Your task to perform on an android device: open app "Pinterest" (install if not already installed) Image 0: 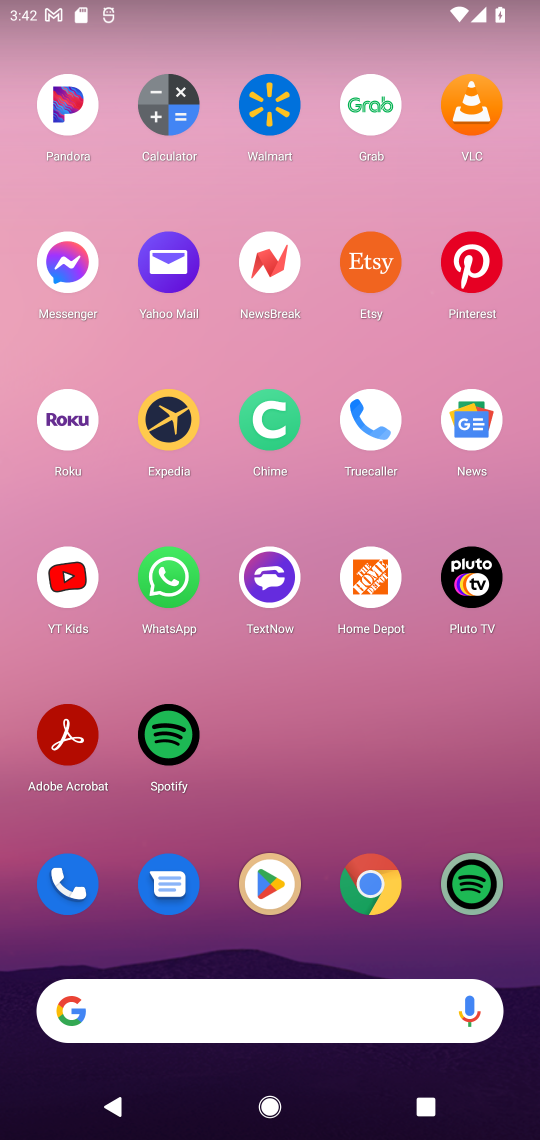
Step 0: click (264, 886)
Your task to perform on an android device: open app "Pinterest" (install if not already installed) Image 1: 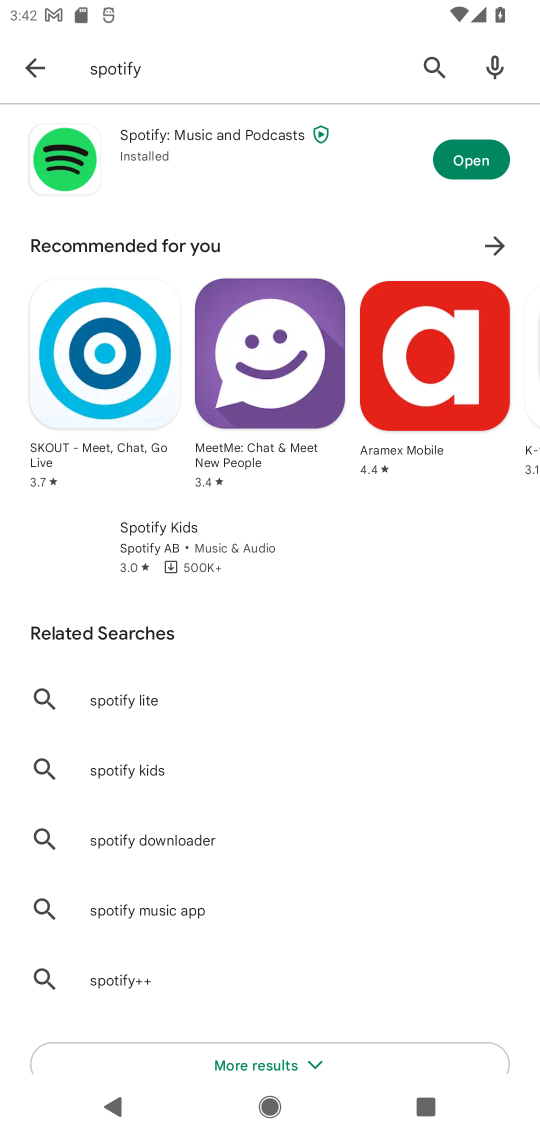
Step 1: click (164, 70)
Your task to perform on an android device: open app "Pinterest" (install if not already installed) Image 2: 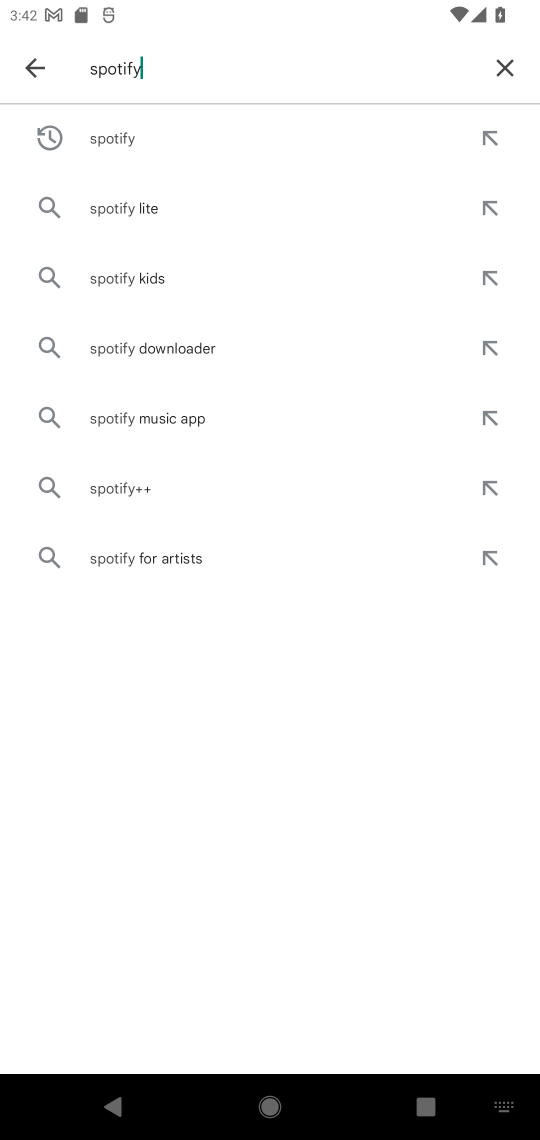
Step 2: click (510, 66)
Your task to perform on an android device: open app "Pinterest" (install if not already installed) Image 3: 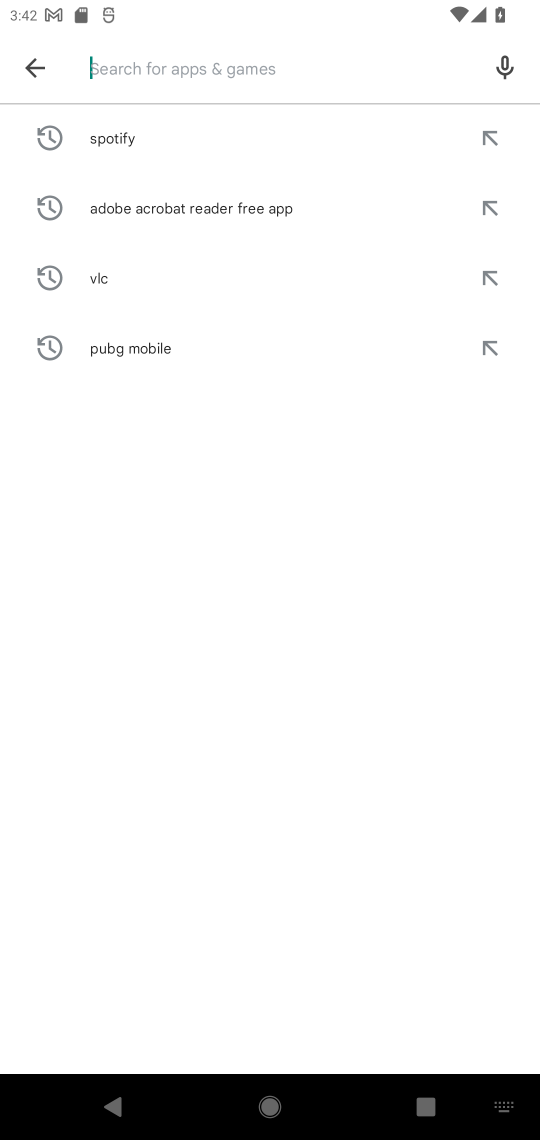
Step 3: type "Pinterest"
Your task to perform on an android device: open app "Pinterest" (install if not already installed) Image 4: 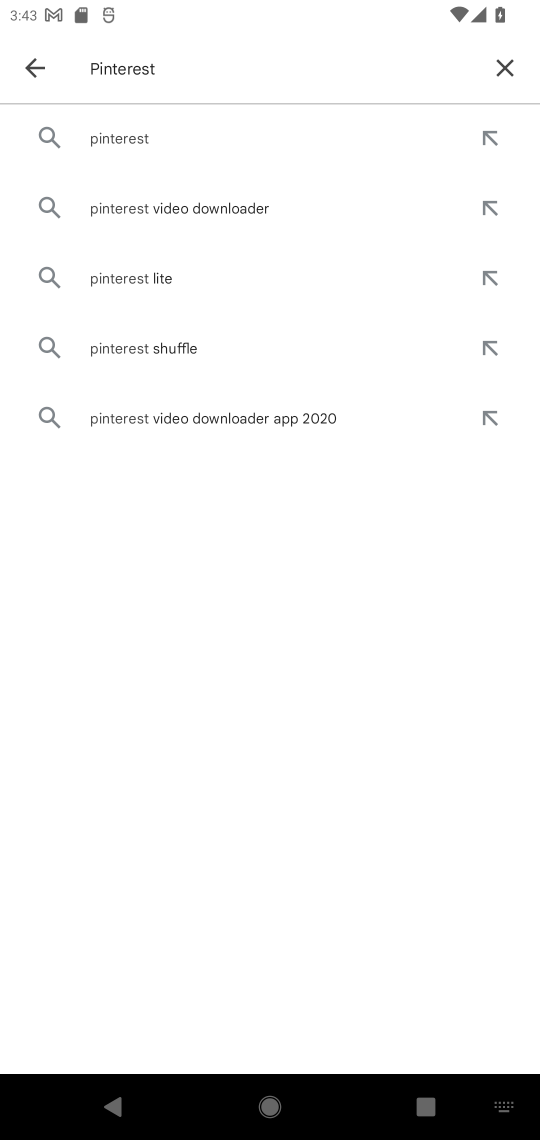
Step 4: click (148, 142)
Your task to perform on an android device: open app "Pinterest" (install if not already installed) Image 5: 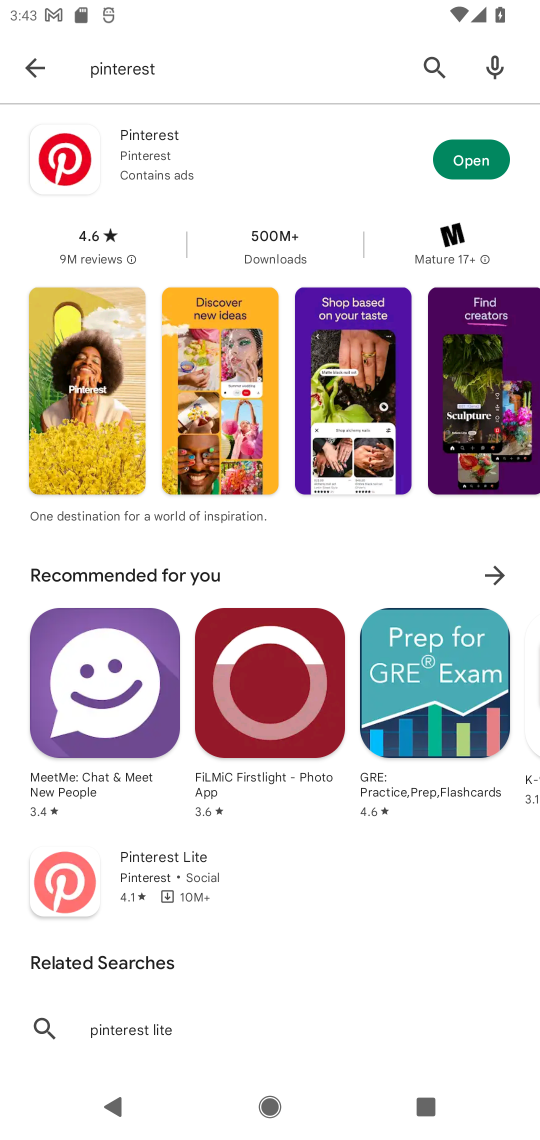
Step 5: click (497, 163)
Your task to perform on an android device: open app "Pinterest" (install if not already installed) Image 6: 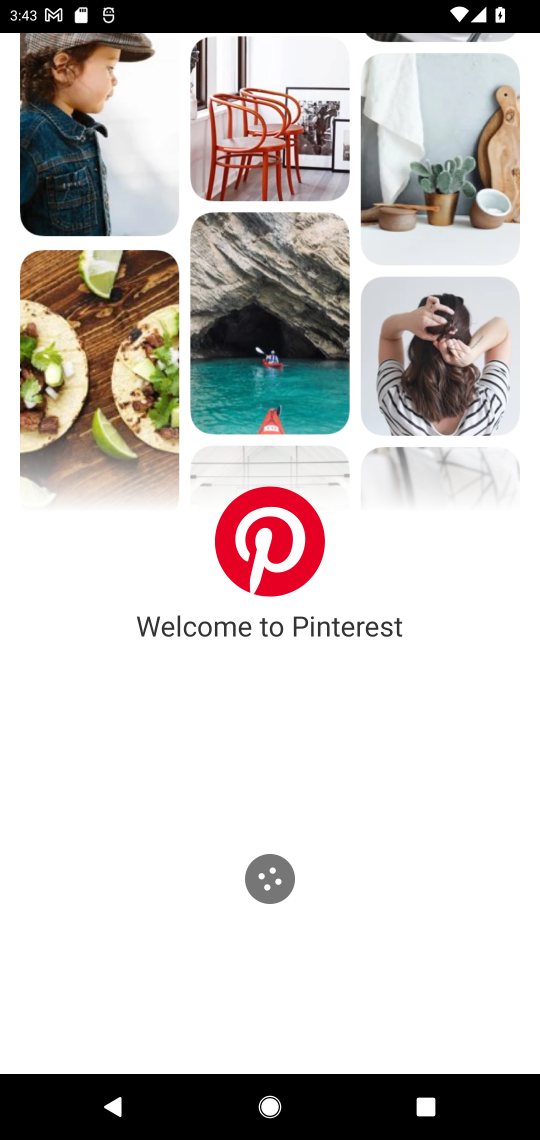
Step 6: click (214, 1010)
Your task to perform on an android device: open app "Pinterest" (install if not already installed) Image 7: 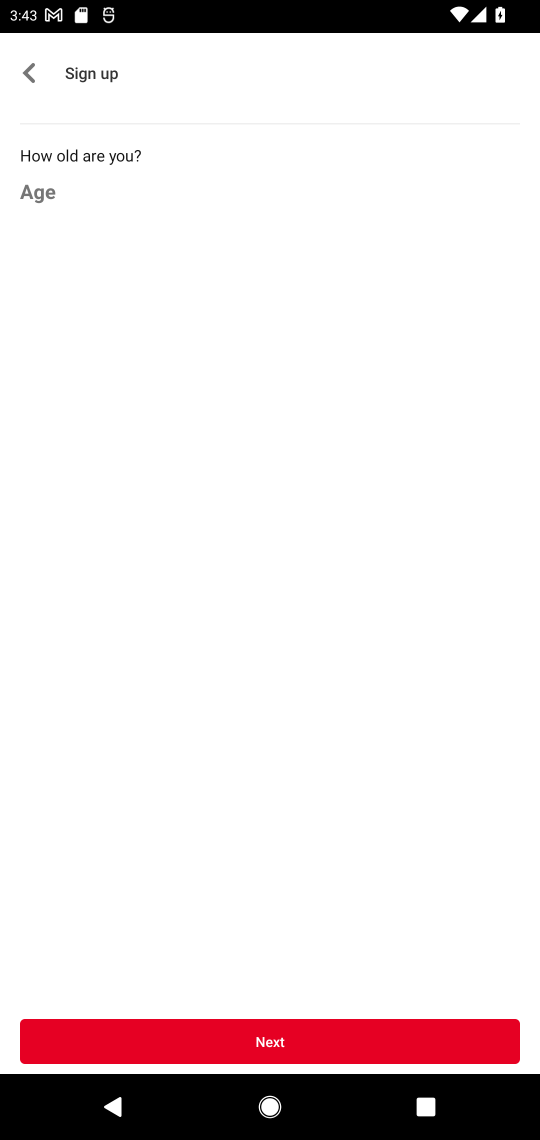
Step 7: click (27, 67)
Your task to perform on an android device: open app "Pinterest" (install if not already installed) Image 8: 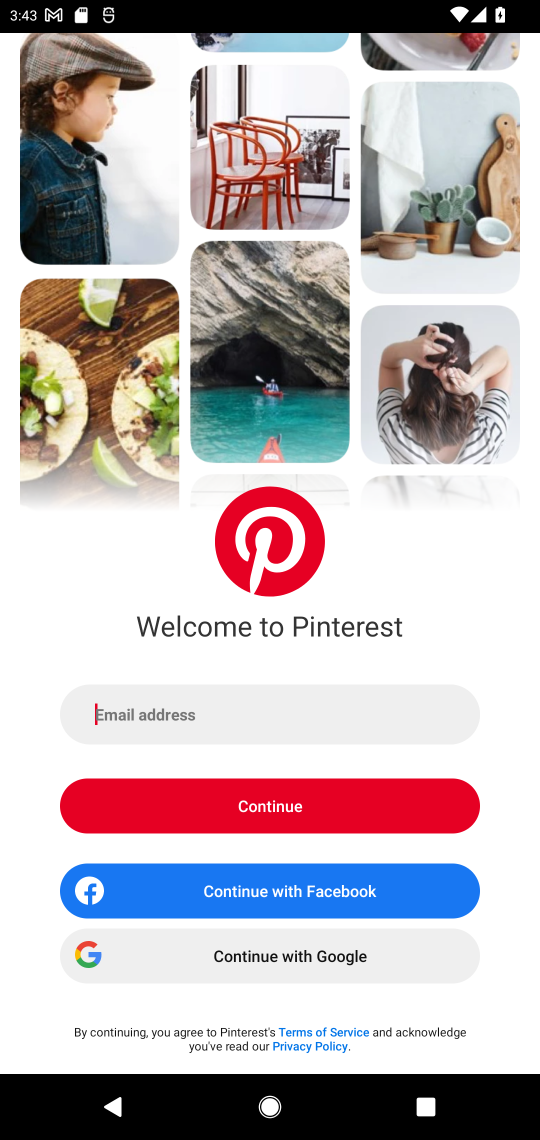
Step 8: click (319, 799)
Your task to perform on an android device: open app "Pinterest" (install if not already installed) Image 9: 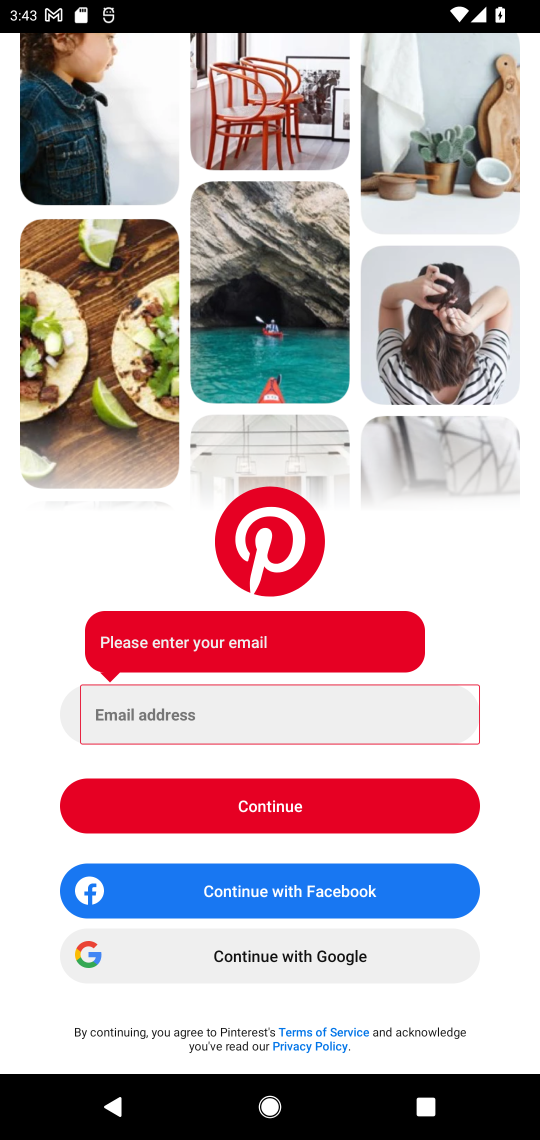
Step 9: click (316, 952)
Your task to perform on an android device: open app "Pinterest" (install if not already installed) Image 10: 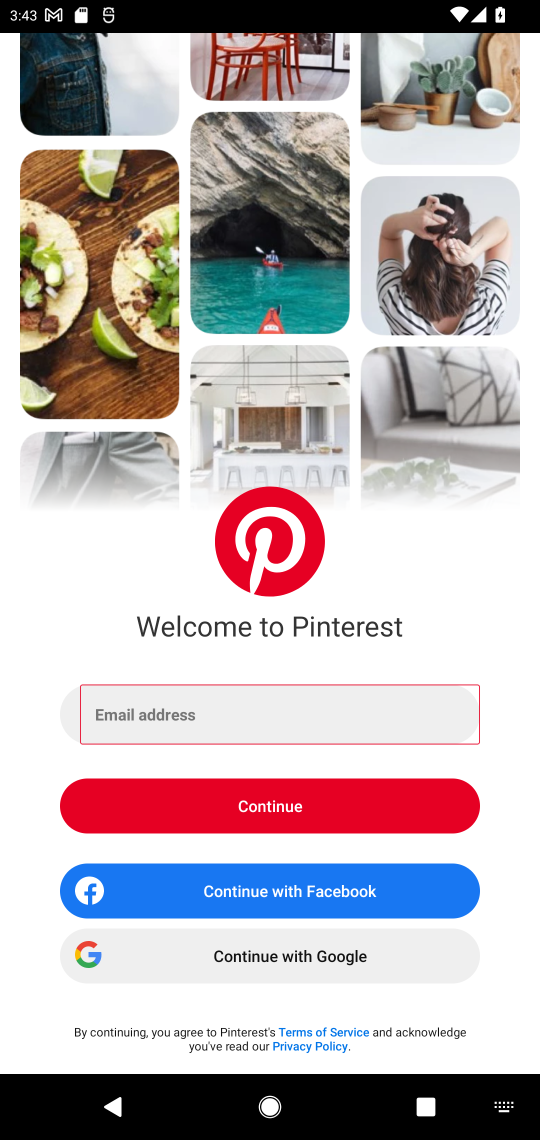
Step 10: click (321, 950)
Your task to perform on an android device: open app "Pinterest" (install if not already installed) Image 11: 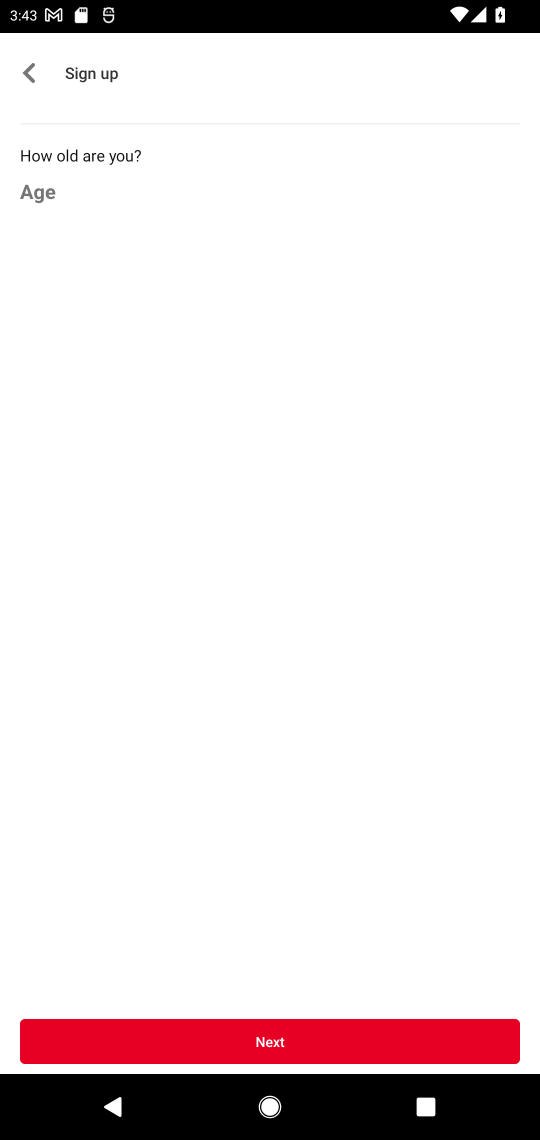
Step 11: click (53, 194)
Your task to perform on an android device: open app "Pinterest" (install if not already installed) Image 12: 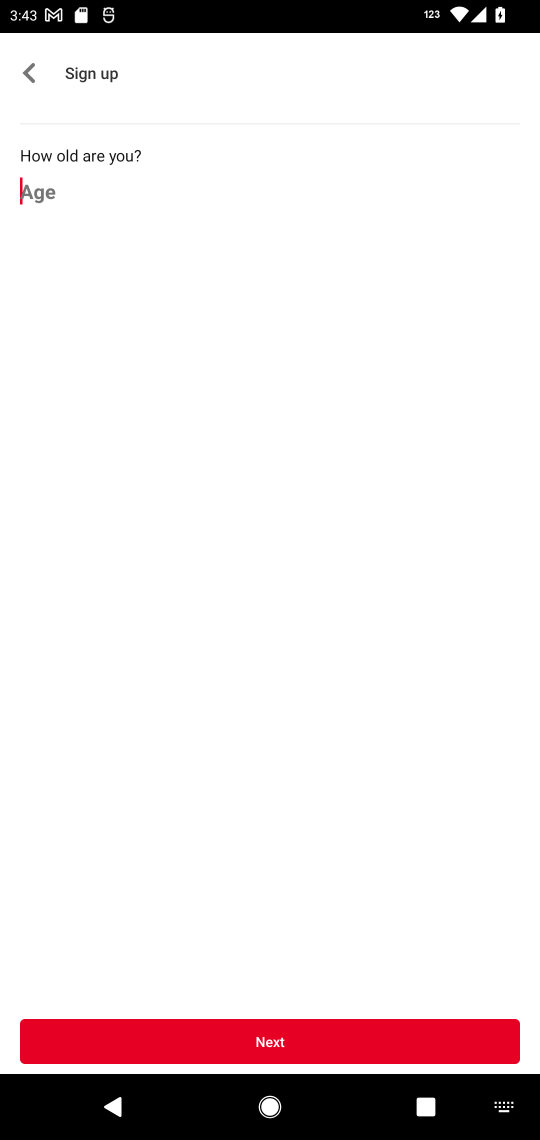
Step 12: type "26"
Your task to perform on an android device: open app "Pinterest" (install if not already installed) Image 13: 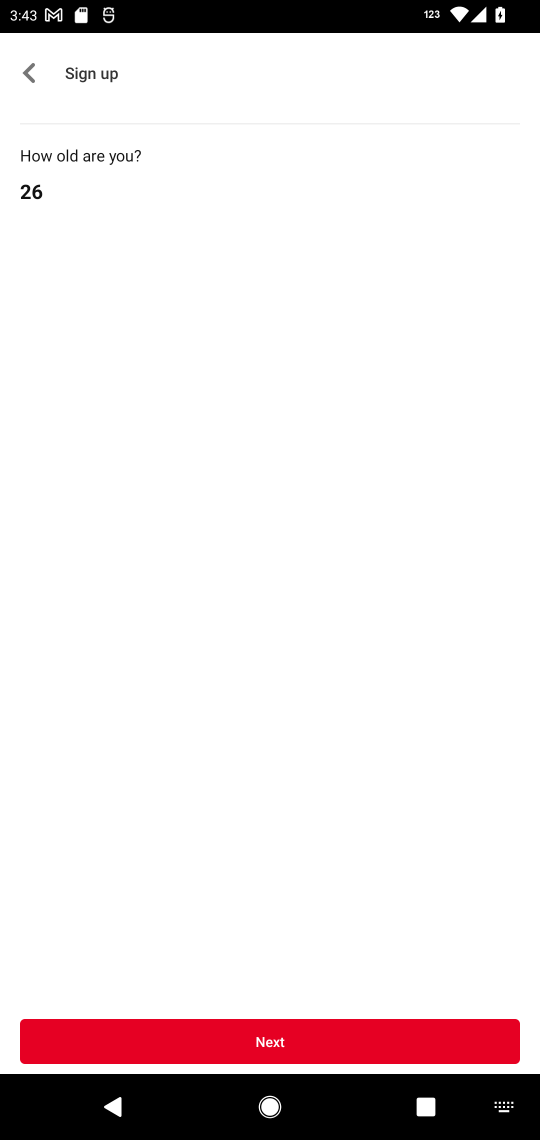
Step 13: click (312, 1049)
Your task to perform on an android device: open app "Pinterest" (install if not already installed) Image 14: 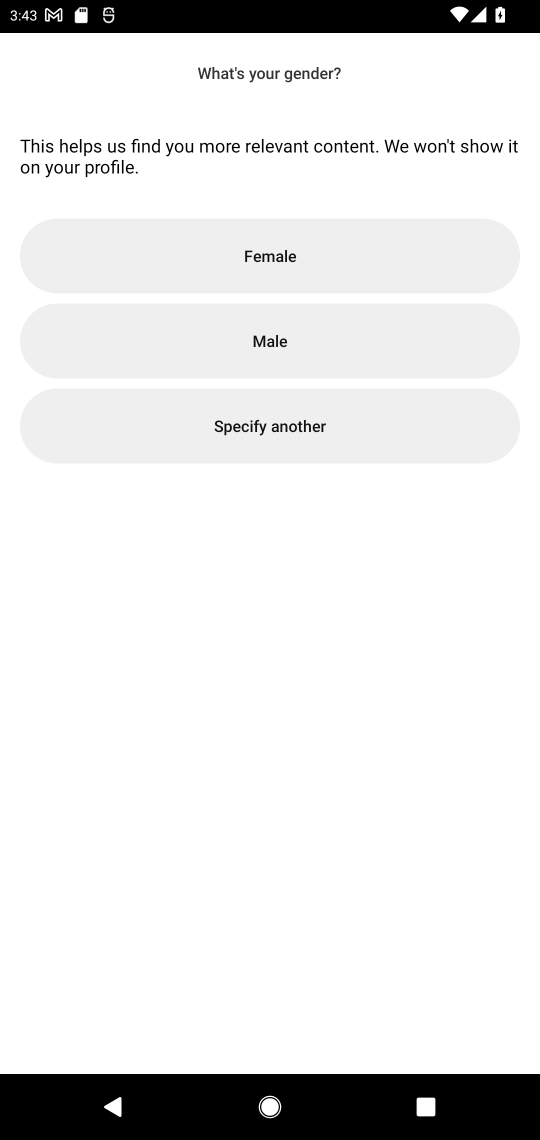
Step 14: click (326, 345)
Your task to perform on an android device: open app "Pinterest" (install if not already installed) Image 15: 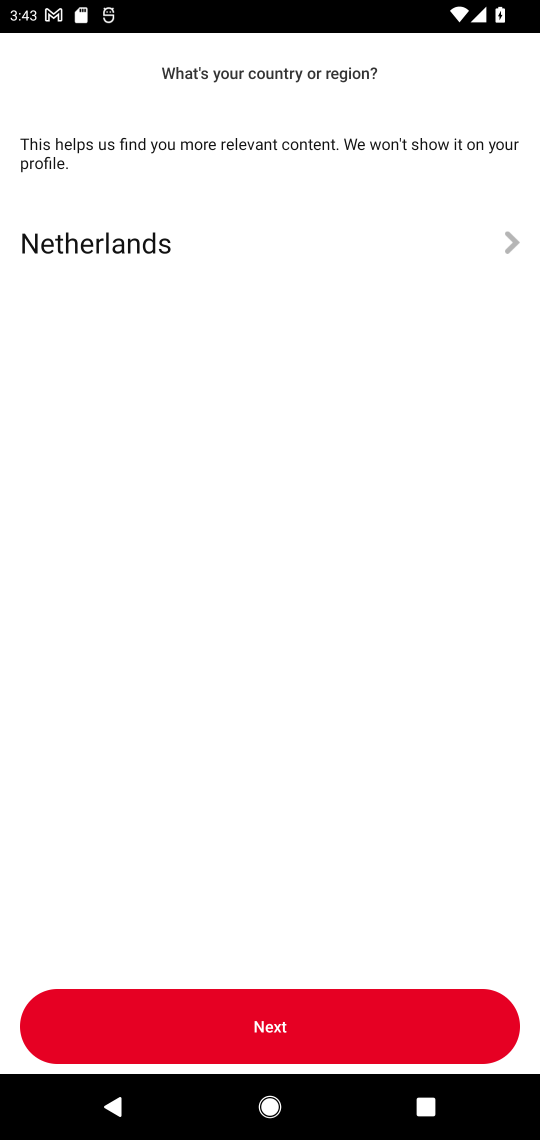
Step 15: click (331, 1022)
Your task to perform on an android device: open app "Pinterest" (install if not already installed) Image 16: 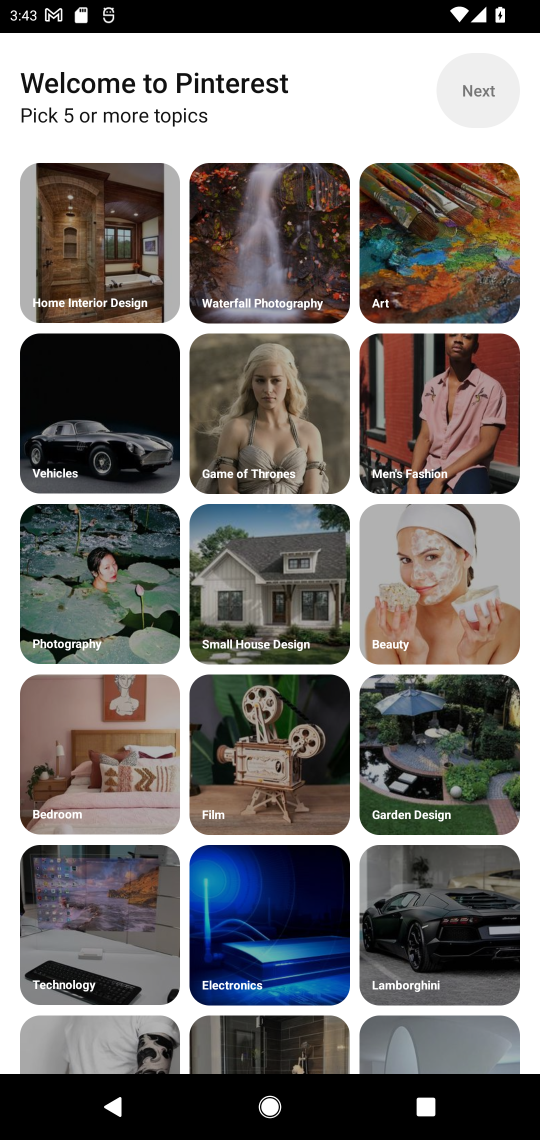
Step 16: click (88, 236)
Your task to perform on an android device: open app "Pinterest" (install if not already installed) Image 17: 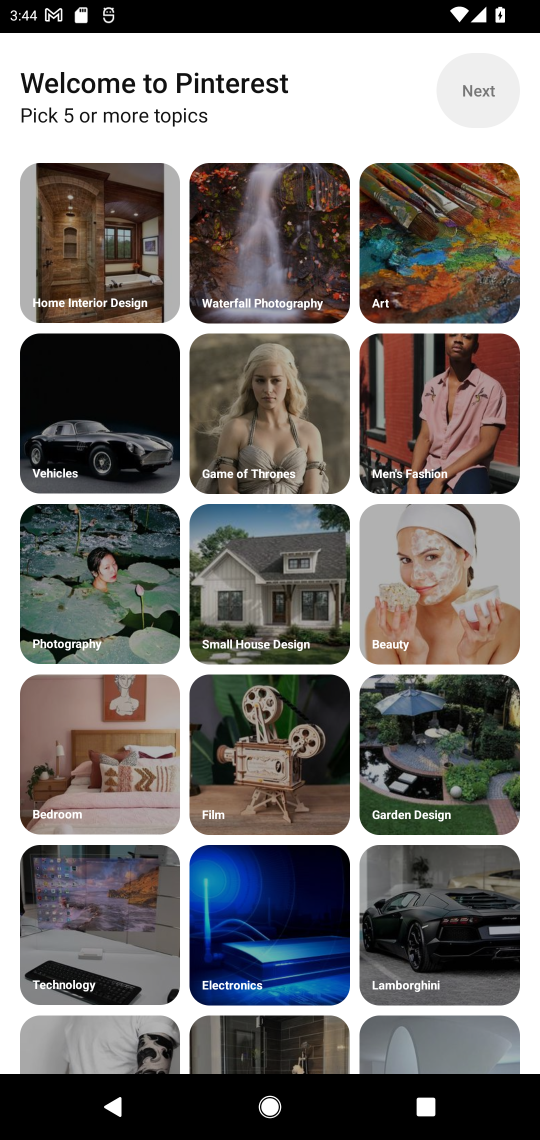
Step 17: click (266, 295)
Your task to perform on an android device: open app "Pinterest" (install if not already installed) Image 18: 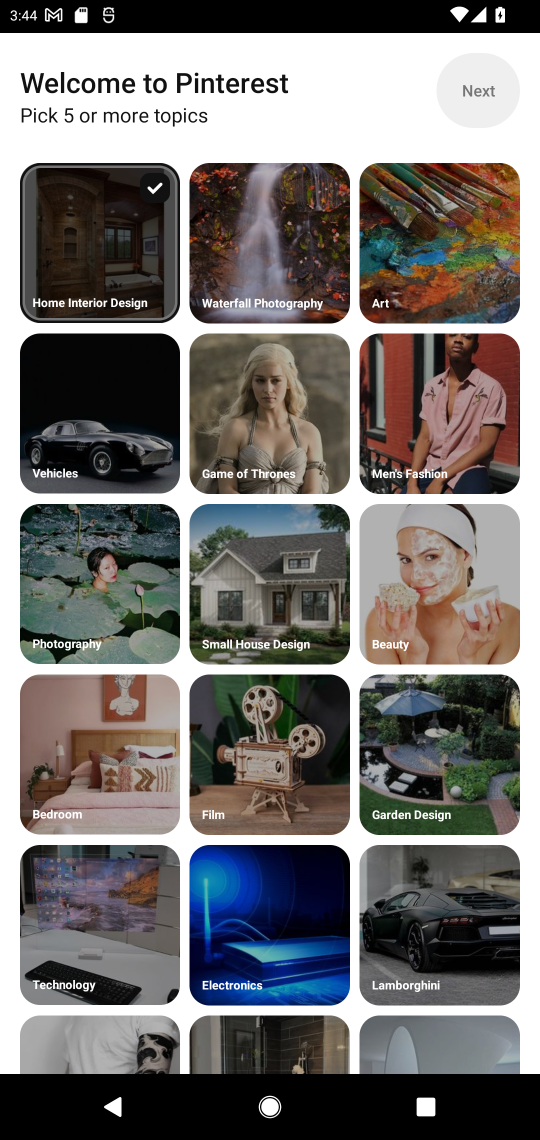
Step 18: click (487, 288)
Your task to perform on an android device: open app "Pinterest" (install if not already installed) Image 19: 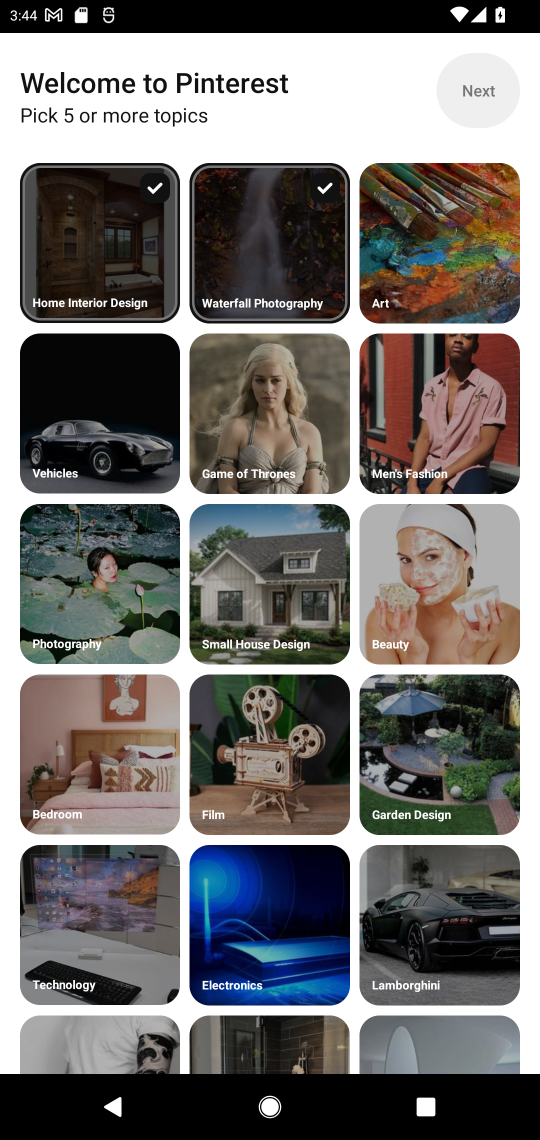
Step 19: click (262, 463)
Your task to perform on an android device: open app "Pinterest" (install if not already installed) Image 20: 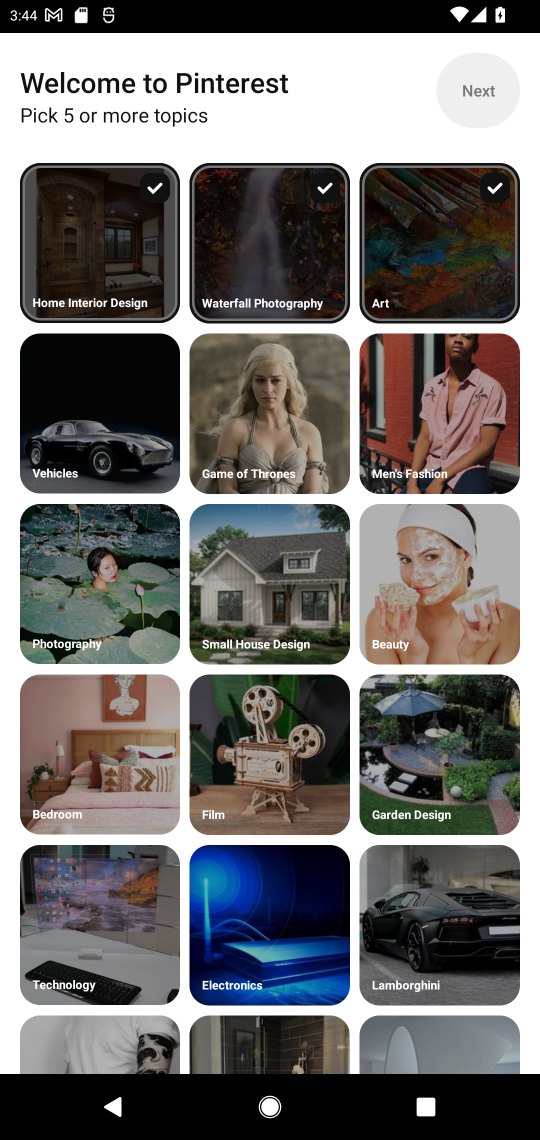
Step 20: drag from (269, 631) to (450, 612)
Your task to perform on an android device: open app "Pinterest" (install if not already installed) Image 21: 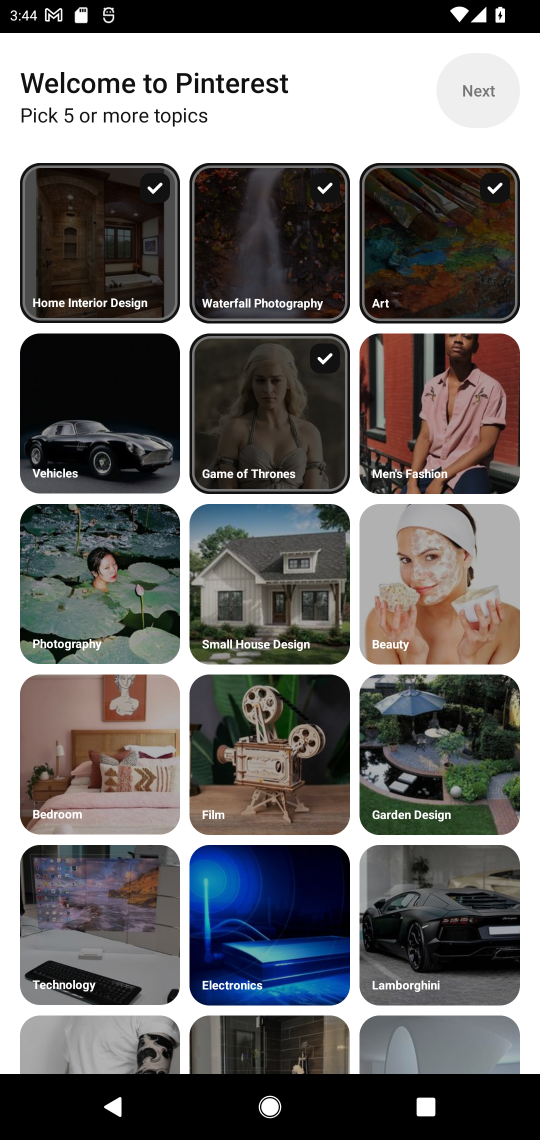
Step 21: click (64, 761)
Your task to perform on an android device: open app "Pinterest" (install if not already installed) Image 22: 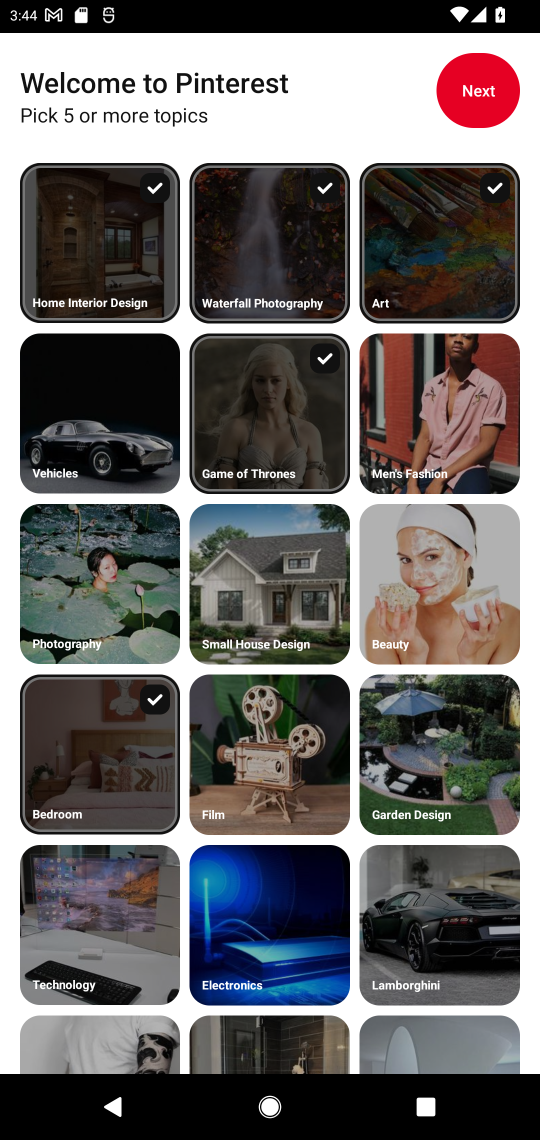
Step 22: click (310, 595)
Your task to perform on an android device: open app "Pinterest" (install if not already installed) Image 23: 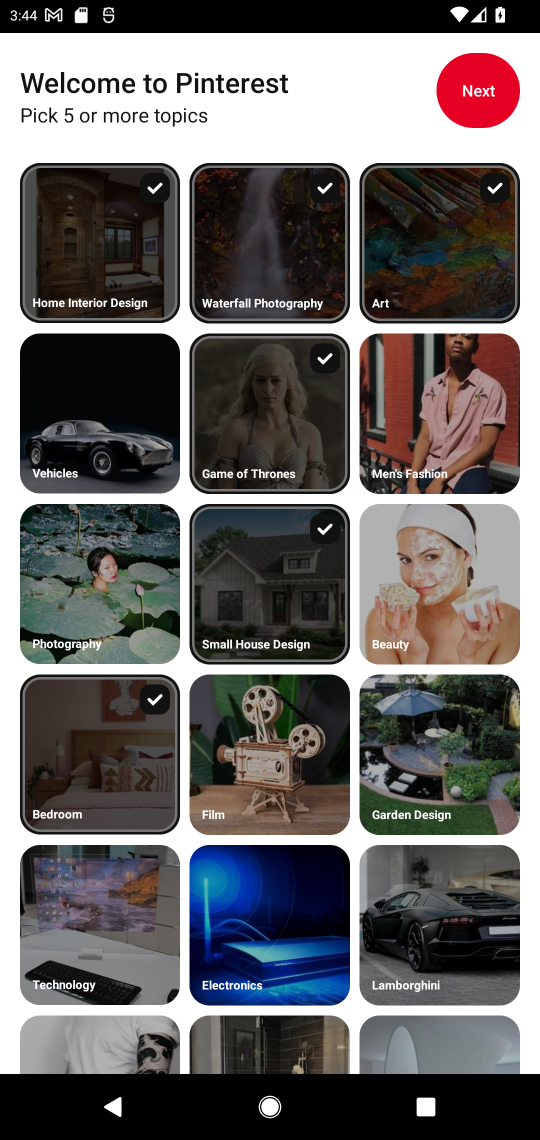
Step 23: click (484, 57)
Your task to perform on an android device: open app "Pinterest" (install if not already installed) Image 24: 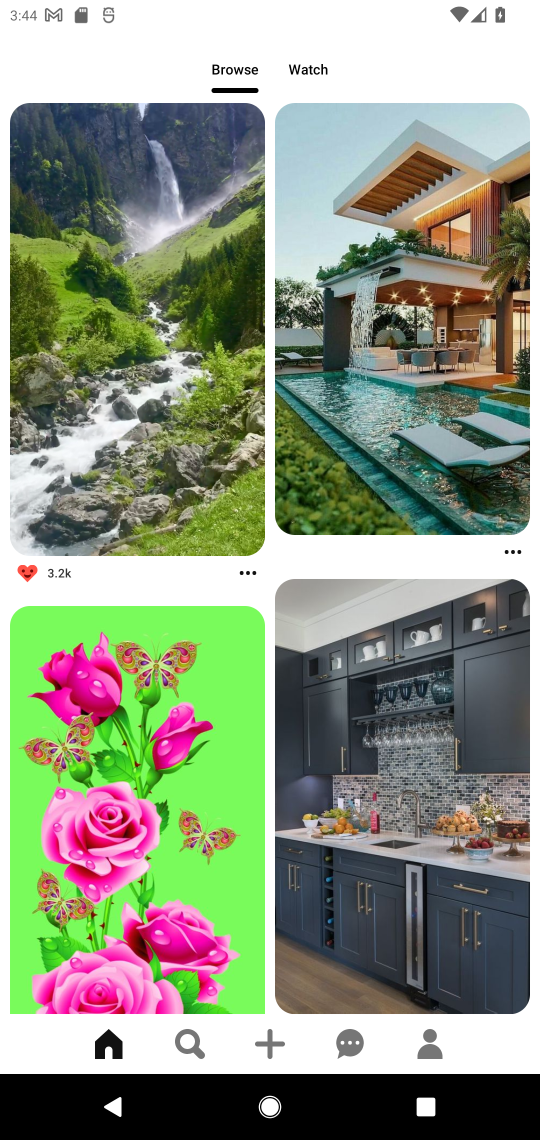
Step 24: click (312, 62)
Your task to perform on an android device: open app "Pinterest" (install if not already installed) Image 25: 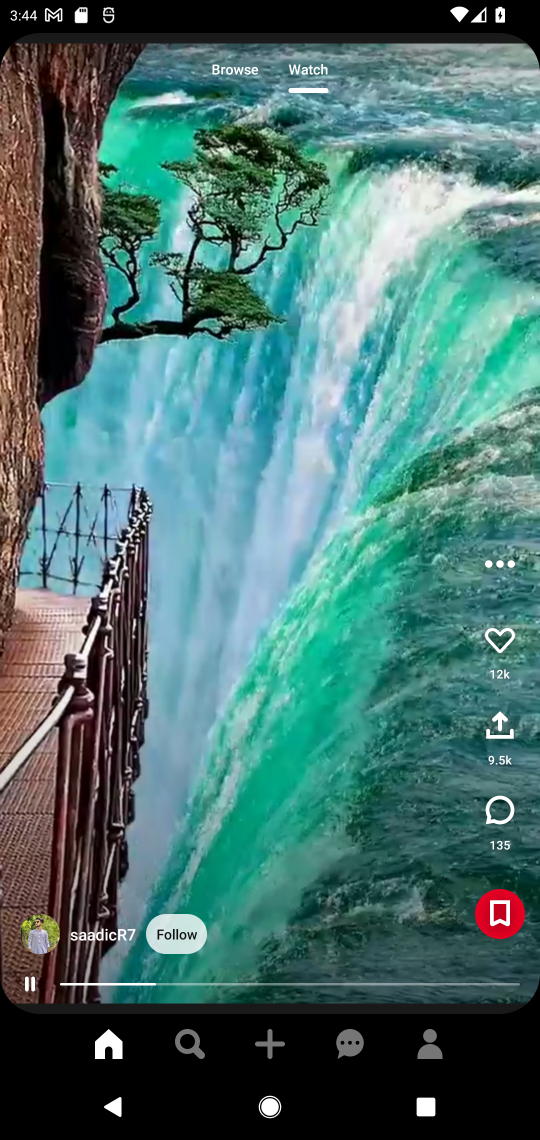
Step 25: task complete